Your task to perform on an android device: Go to CNN.com Image 0: 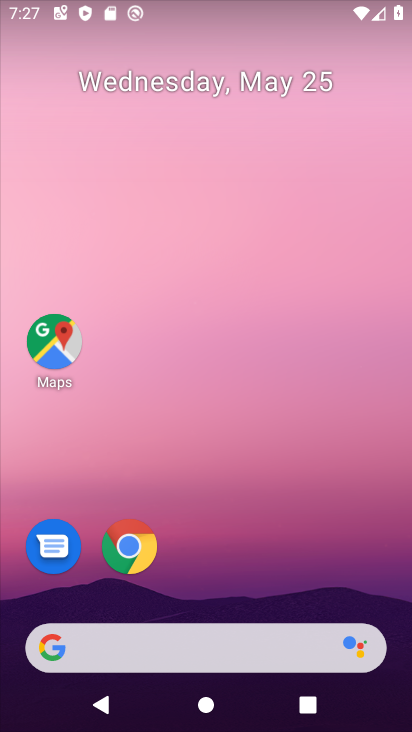
Step 0: click (135, 548)
Your task to perform on an android device: Go to CNN.com Image 1: 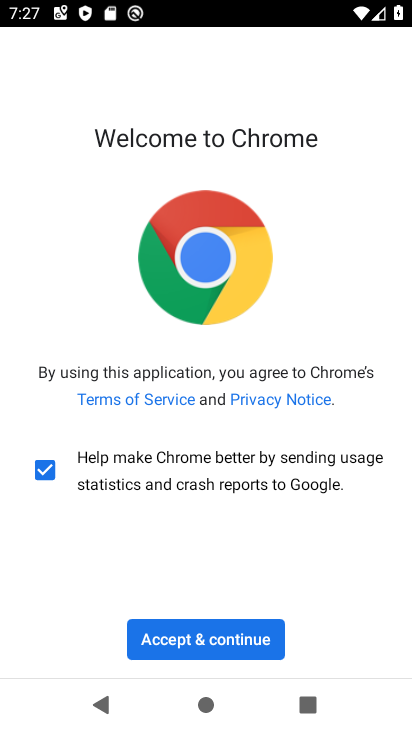
Step 1: click (208, 628)
Your task to perform on an android device: Go to CNN.com Image 2: 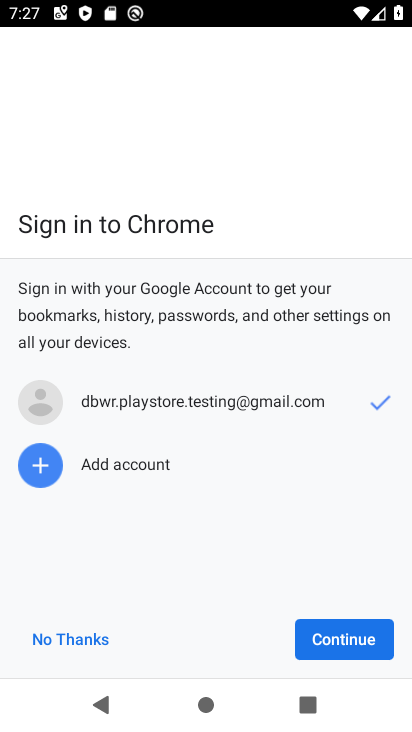
Step 2: click (340, 635)
Your task to perform on an android device: Go to CNN.com Image 3: 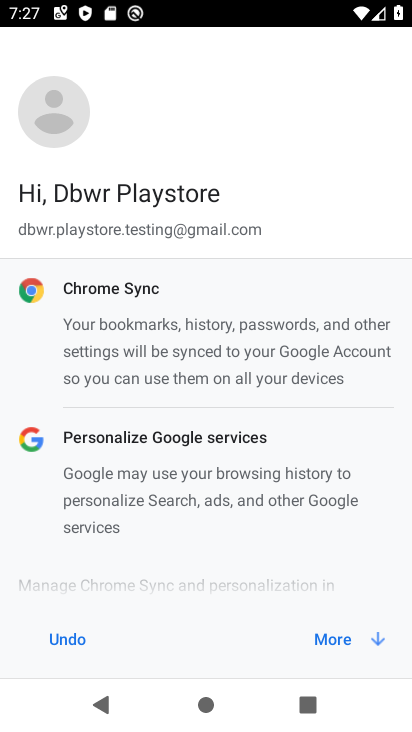
Step 3: click (342, 642)
Your task to perform on an android device: Go to CNN.com Image 4: 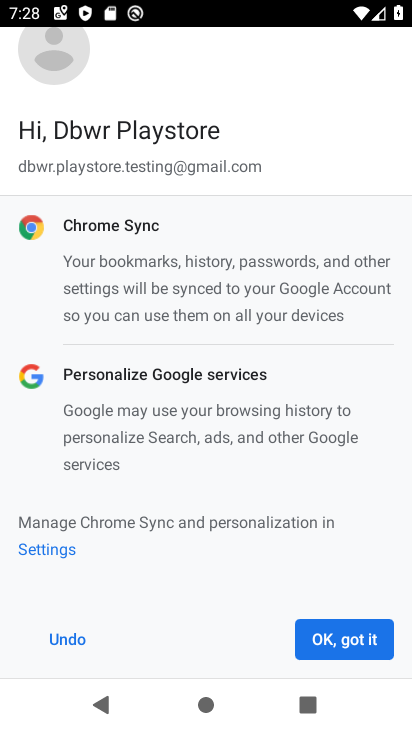
Step 4: click (341, 642)
Your task to perform on an android device: Go to CNN.com Image 5: 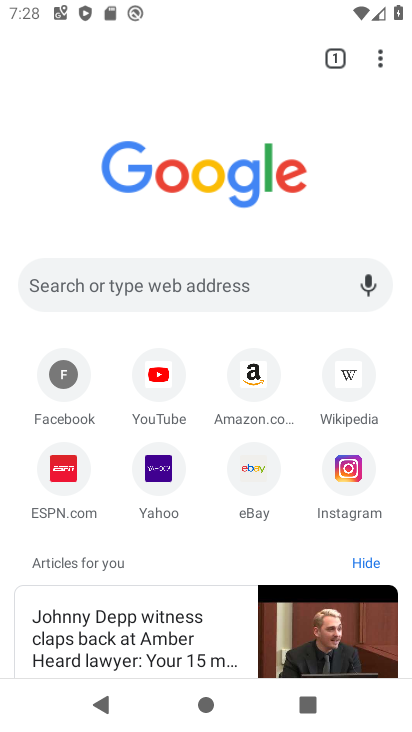
Step 5: click (234, 271)
Your task to perform on an android device: Go to CNN.com Image 6: 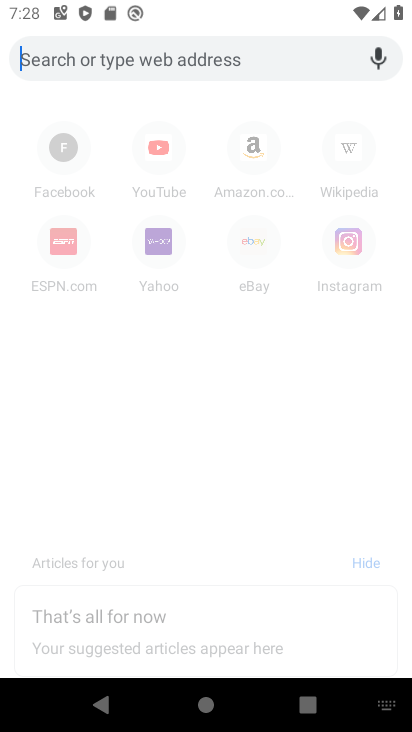
Step 6: type "cnn.com"
Your task to perform on an android device: Go to CNN.com Image 7: 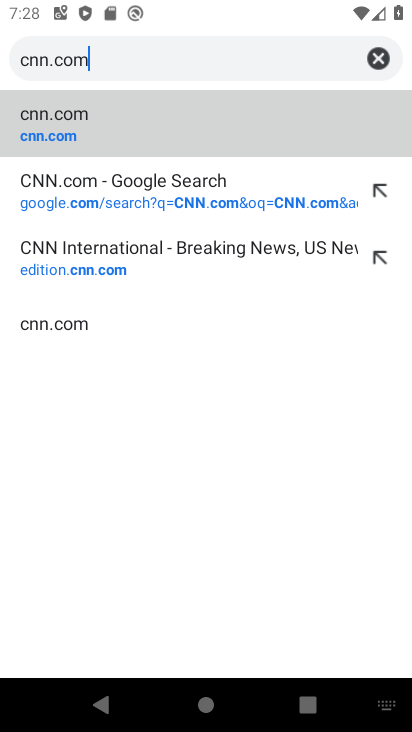
Step 7: click (124, 118)
Your task to perform on an android device: Go to CNN.com Image 8: 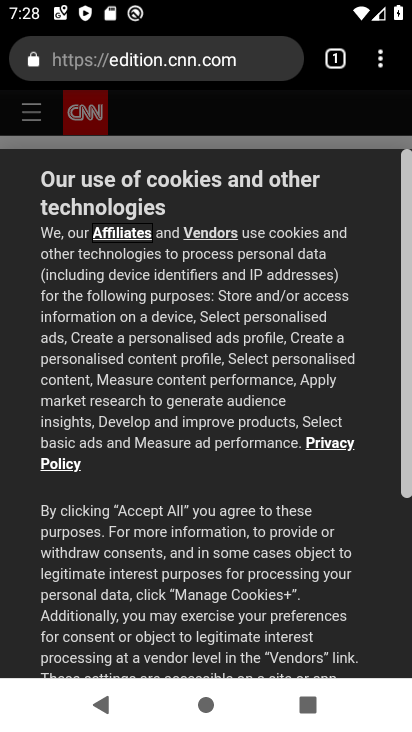
Step 8: drag from (202, 608) to (331, 252)
Your task to perform on an android device: Go to CNN.com Image 9: 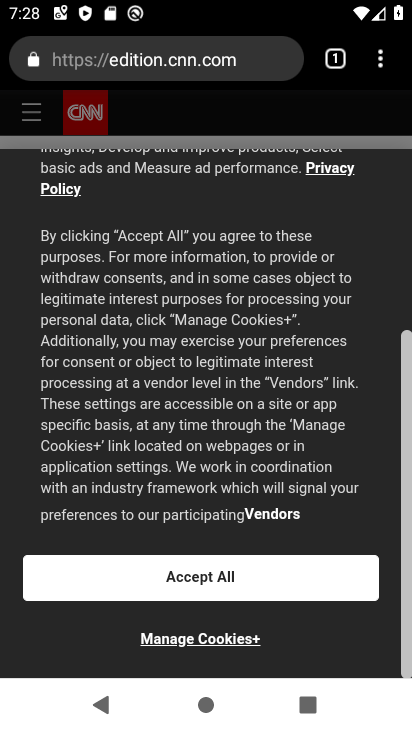
Step 9: click (204, 572)
Your task to perform on an android device: Go to CNN.com Image 10: 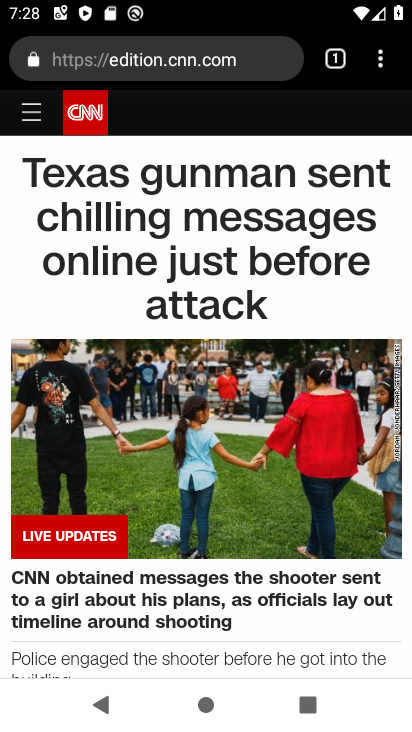
Step 10: task complete